Your task to perform on an android device: Open maps Image 0: 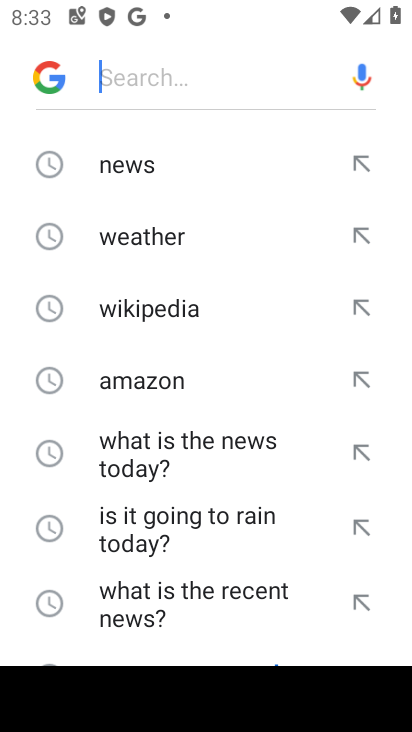
Step 0: press home button
Your task to perform on an android device: Open maps Image 1: 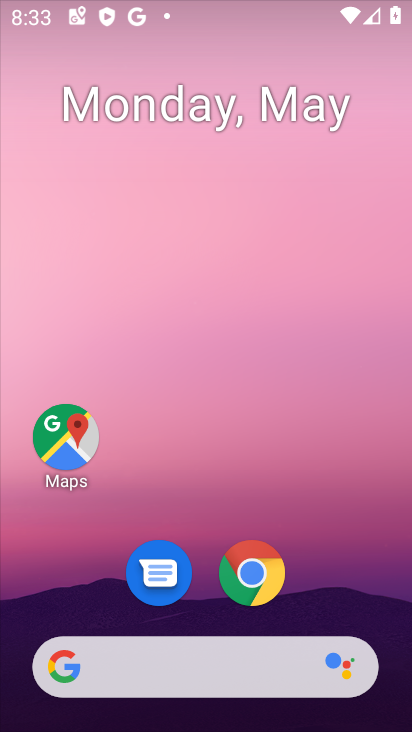
Step 1: drag from (227, 660) to (299, 196)
Your task to perform on an android device: Open maps Image 2: 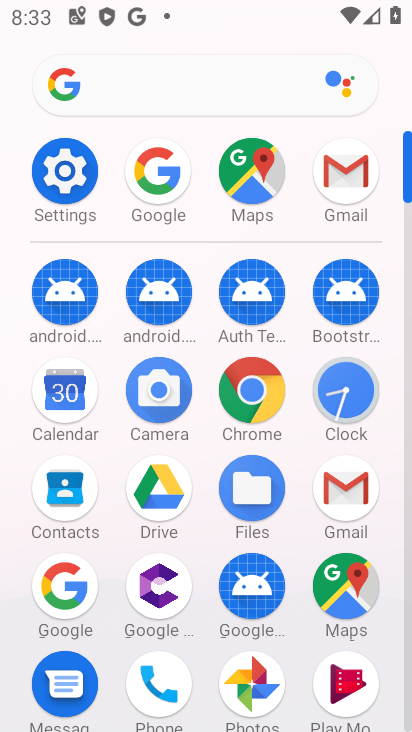
Step 2: drag from (182, 563) to (239, 364)
Your task to perform on an android device: Open maps Image 3: 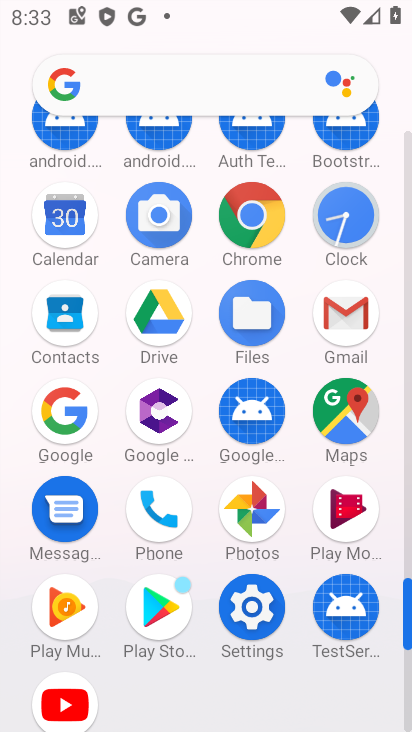
Step 3: click (379, 422)
Your task to perform on an android device: Open maps Image 4: 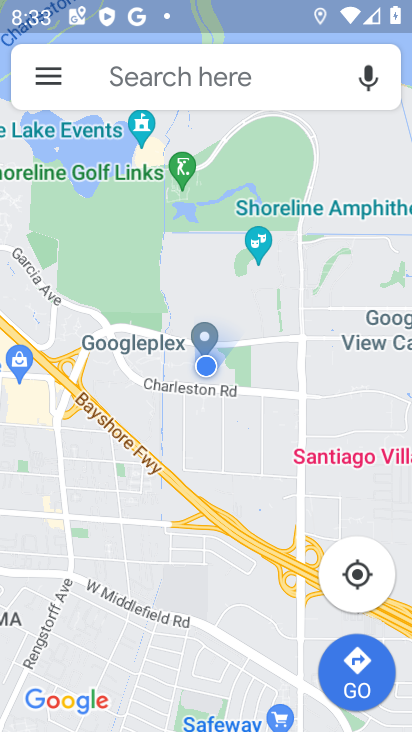
Step 4: task complete